Your task to perform on an android device: turn on improve location accuracy Image 0: 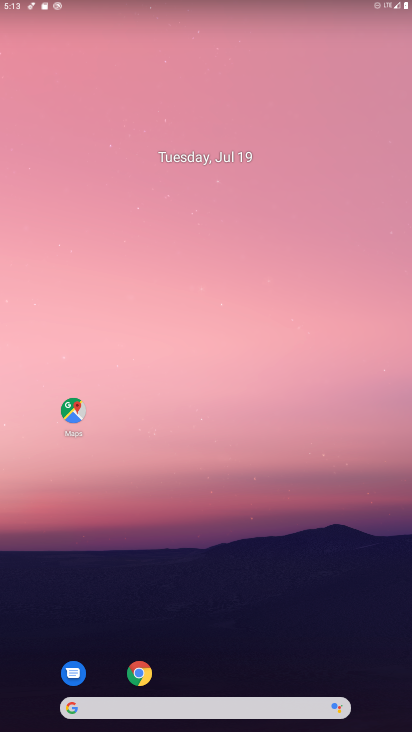
Step 0: press home button
Your task to perform on an android device: turn on improve location accuracy Image 1: 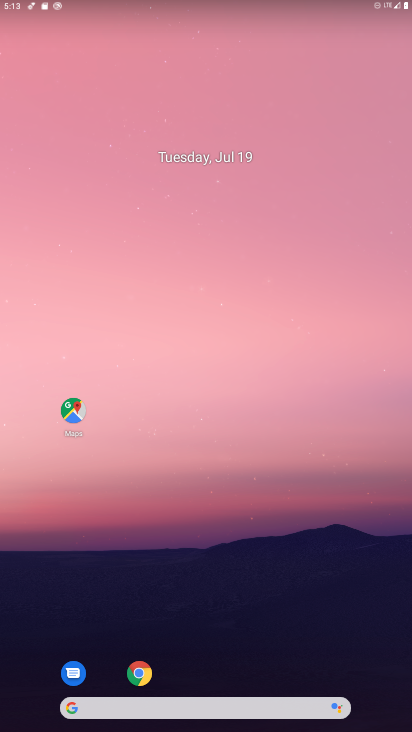
Step 1: drag from (208, 670) to (226, 58)
Your task to perform on an android device: turn on improve location accuracy Image 2: 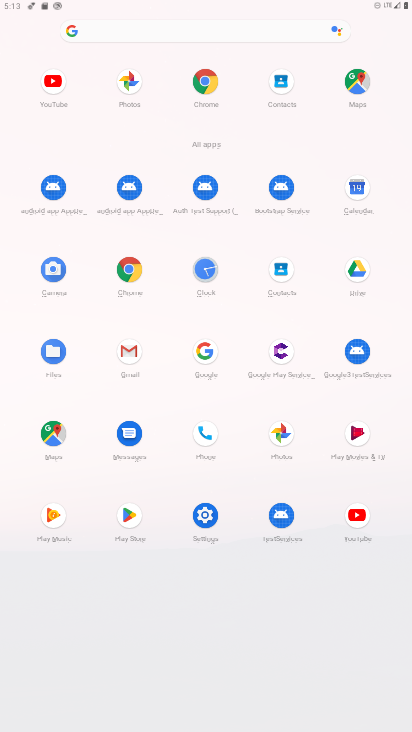
Step 2: click (205, 508)
Your task to perform on an android device: turn on improve location accuracy Image 3: 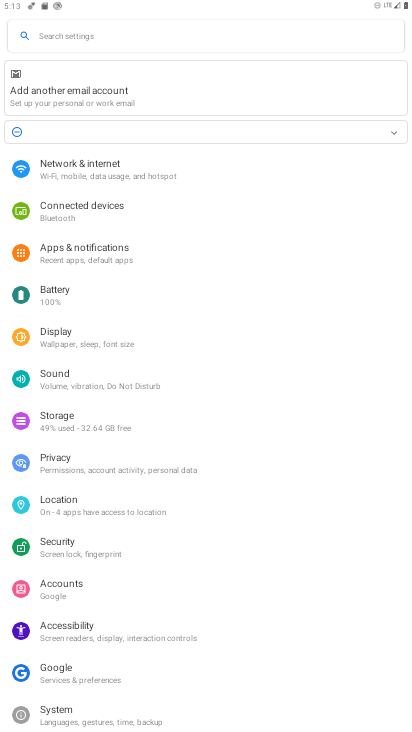
Step 3: click (90, 498)
Your task to perform on an android device: turn on improve location accuracy Image 4: 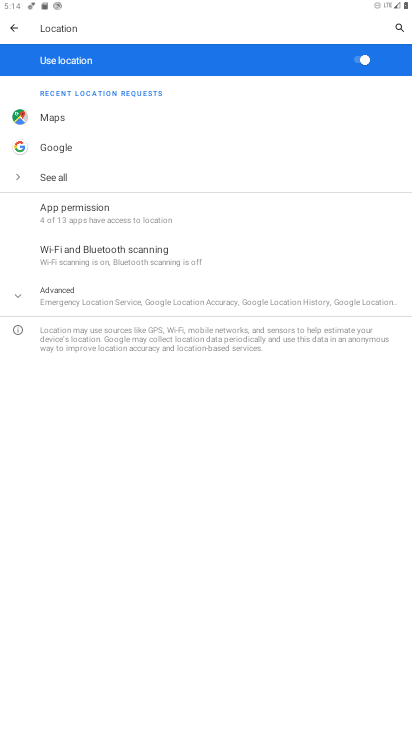
Step 4: click (21, 291)
Your task to perform on an android device: turn on improve location accuracy Image 5: 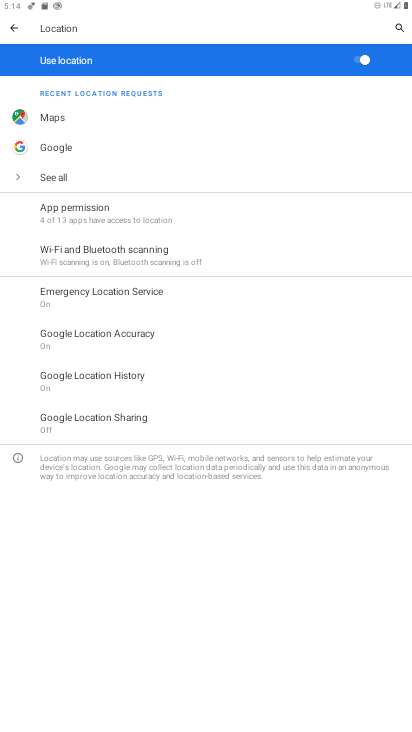
Step 5: click (117, 335)
Your task to perform on an android device: turn on improve location accuracy Image 6: 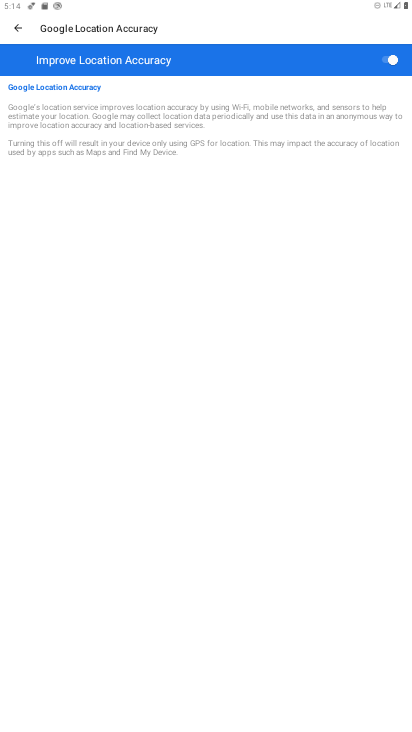
Step 6: task complete